Your task to perform on an android device: stop showing notifications on the lock screen Image 0: 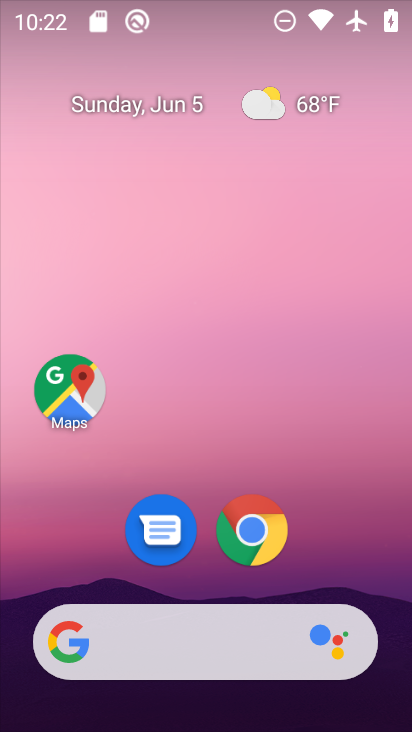
Step 0: drag from (396, 609) to (317, 85)
Your task to perform on an android device: stop showing notifications on the lock screen Image 1: 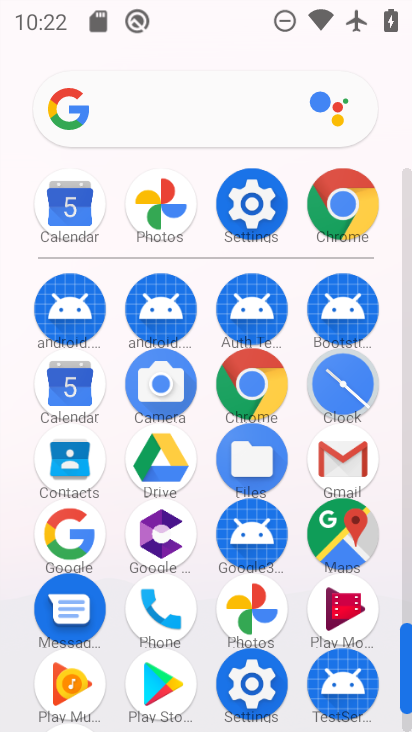
Step 1: click (249, 680)
Your task to perform on an android device: stop showing notifications on the lock screen Image 2: 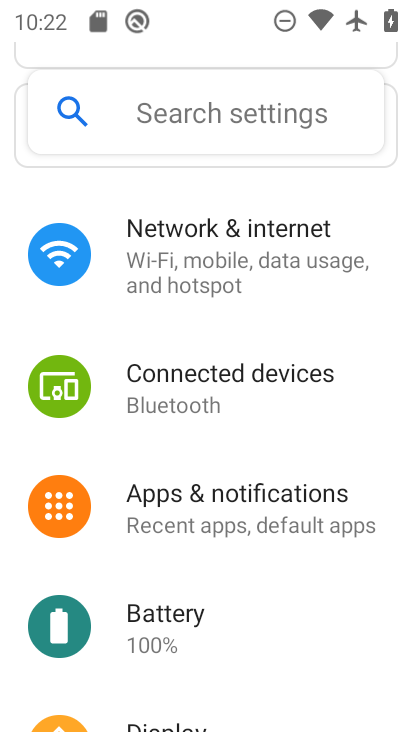
Step 2: drag from (304, 571) to (303, 373)
Your task to perform on an android device: stop showing notifications on the lock screen Image 3: 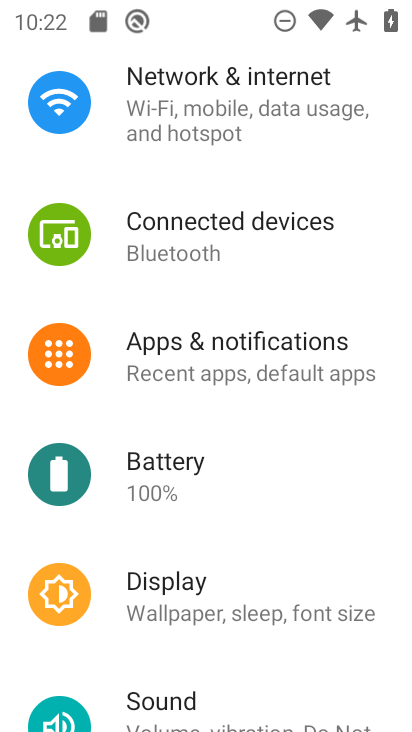
Step 3: click (167, 356)
Your task to perform on an android device: stop showing notifications on the lock screen Image 4: 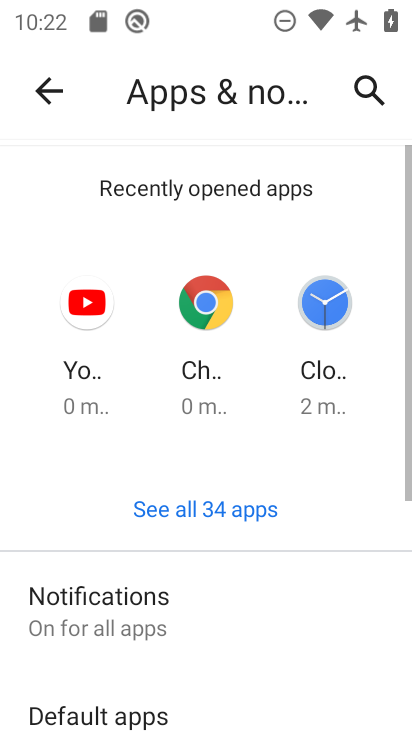
Step 4: drag from (201, 626) to (202, 280)
Your task to perform on an android device: stop showing notifications on the lock screen Image 5: 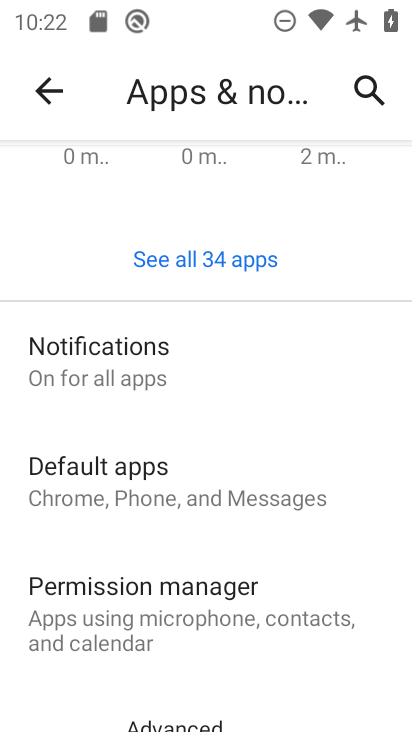
Step 5: click (68, 350)
Your task to perform on an android device: stop showing notifications on the lock screen Image 6: 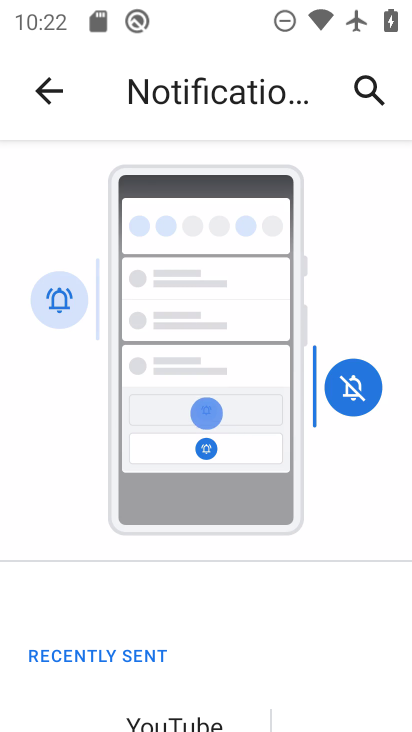
Step 6: drag from (248, 692) to (189, 169)
Your task to perform on an android device: stop showing notifications on the lock screen Image 7: 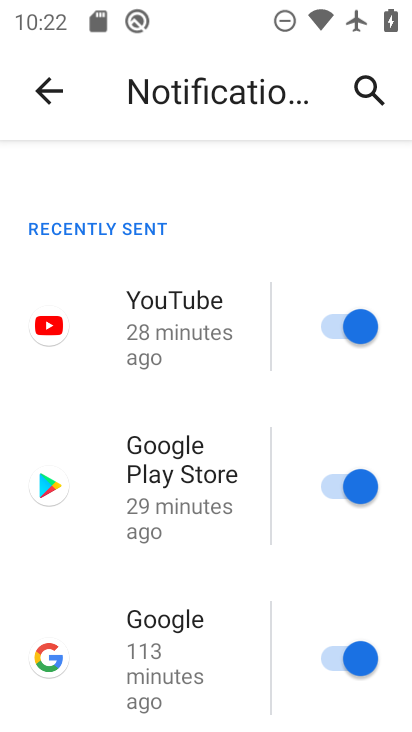
Step 7: drag from (275, 704) to (227, 169)
Your task to perform on an android device: stop showing notifications on the lock screen Image 8: 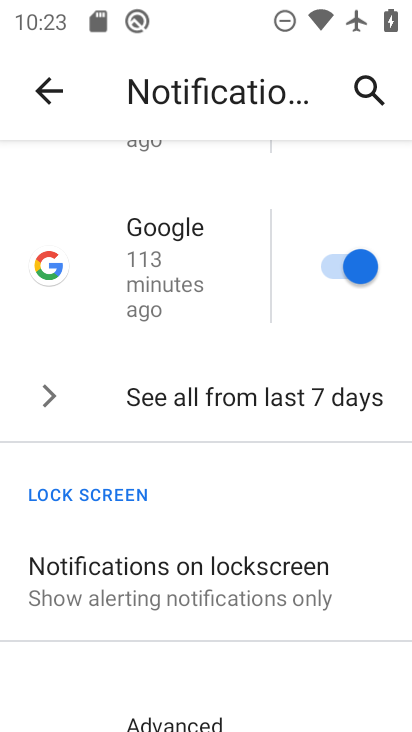
Step 8: drag from (273, 567) to (218, 206)
Your task to perform on an android device: stop showing notifications on the lock screen Image 9: 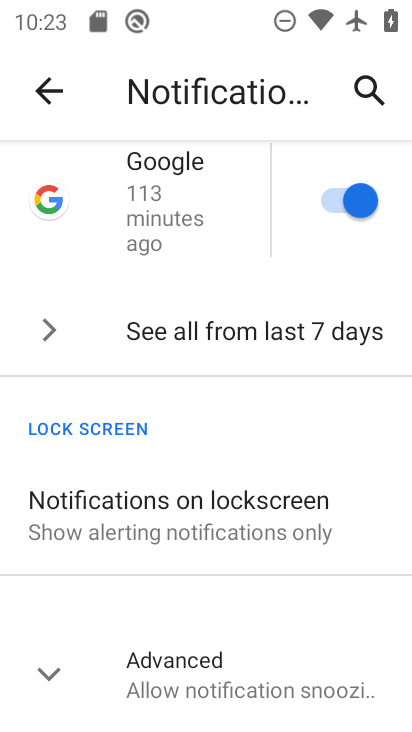
Step 9: click (141, 504)
Your task to perform on an android device: stop showing notifications on the lock screen Image 10: 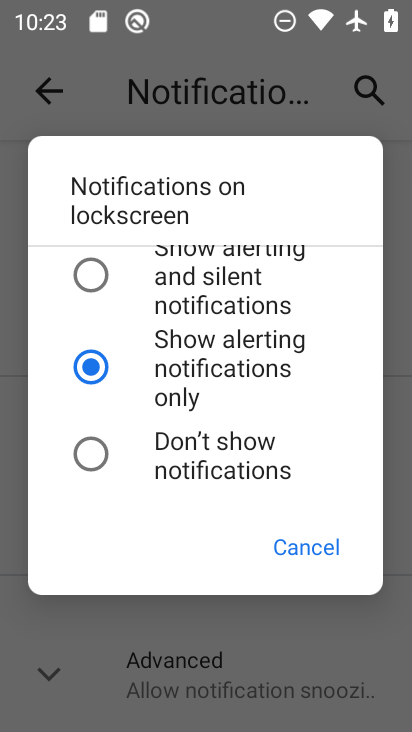
Step 10: click (96, 469)
Your task to perform on an android device: stop showing notifications on the lock screen Image 11: 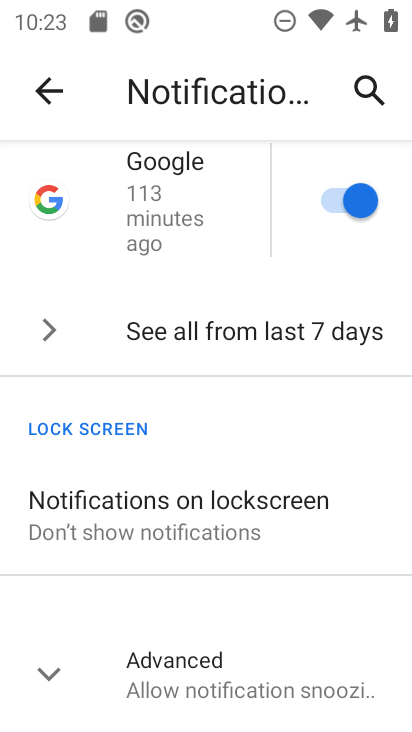
Step 11: task complete